Your task to perform on an android device: turn on notifications settings in the gmail app Image 0: 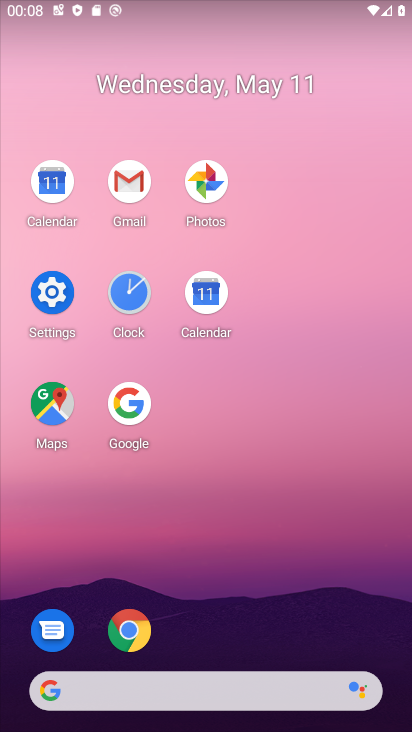
Step 0: click (124, 186)
Your task to perform on an android device: turn on notifications settings in the gmail app Image 1: 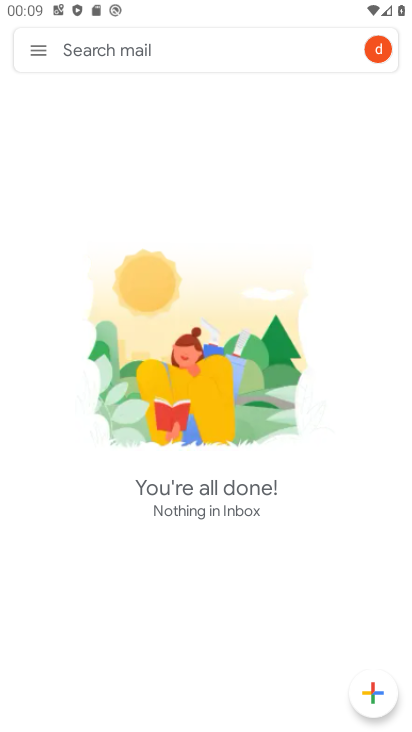
Step 1: click (46, 49)
Your task to perform on an android device: turn on notifications settings in the gmail app Image 2: 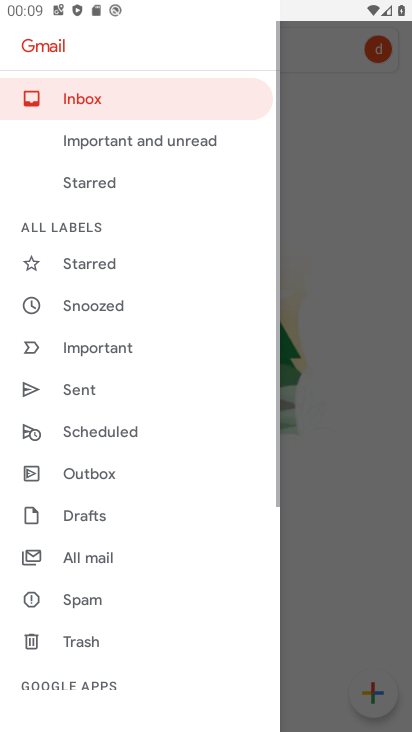
Step 2: drag from (127, 609) to (149, 188)
Your task to perform on an android device: turn on notifications settings in the gmail app Image 3: 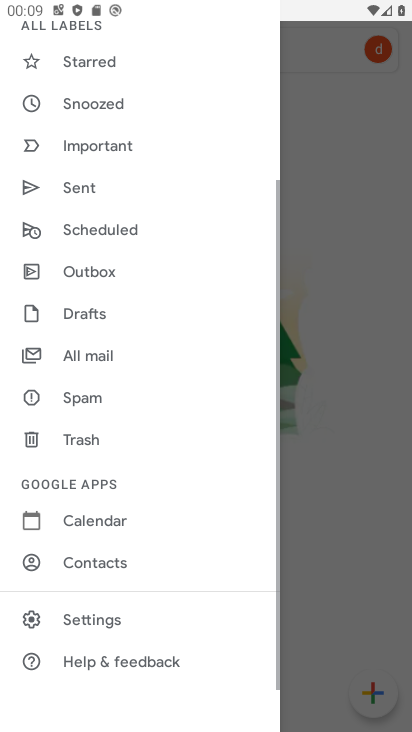
Step 3: click (99, 618)
Your task to perform on an android device: turn on notifications settings in the gmail app Image 4: 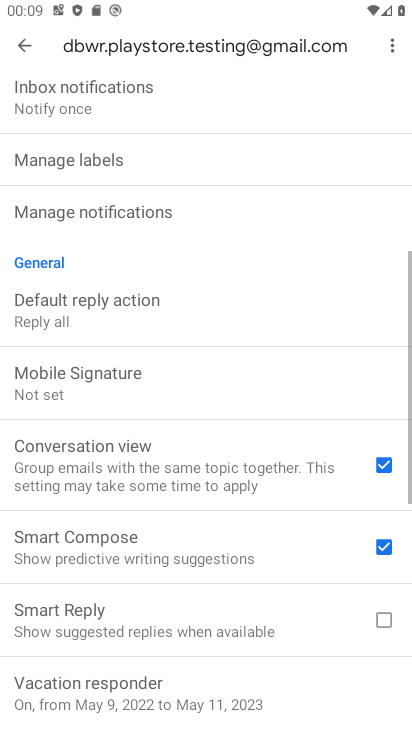
Step 4: drag from (95, 610) to (135, 150)
Your task to perform on an android device: turn on notifications settings in the gmail app Image 5: 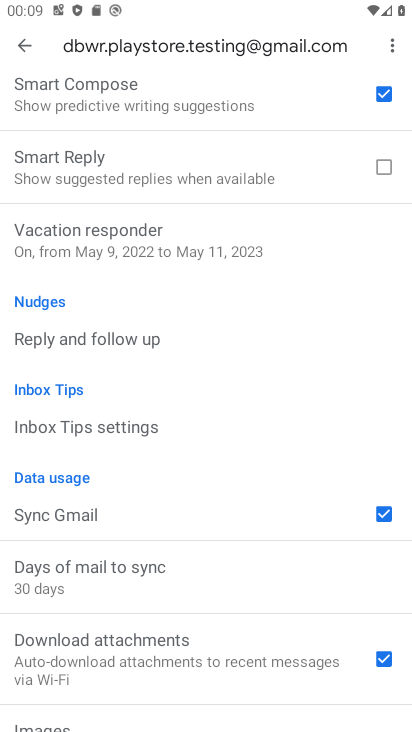
Step 5: drag from (114, 537) to (173, 169)
Your task to perform on an android device: turn on notifications settings in the gmail app Image 6: 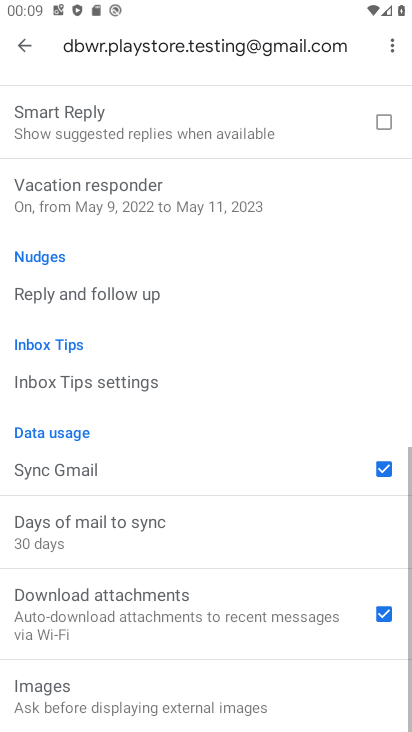
Step 6: drag from (167, 183) to (129, 700)
Your task to perform on an android device: turn on notifications settings in the gmail app Image 7: 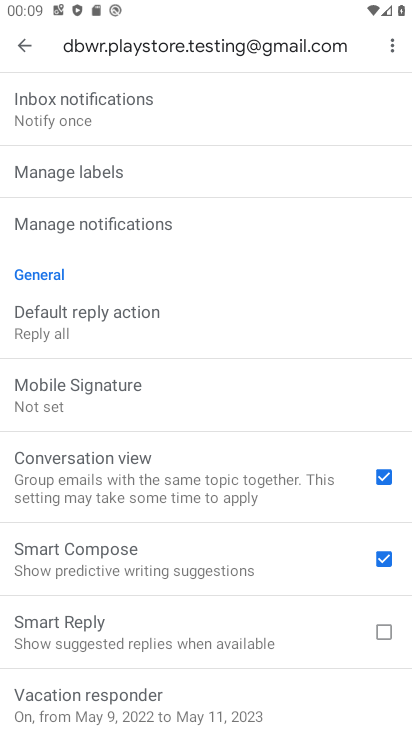
Step 7: drag from (223, 182) to (205, 367)
Your task to perform on an android device: turn on notifications settings in the gmail app Image 8: 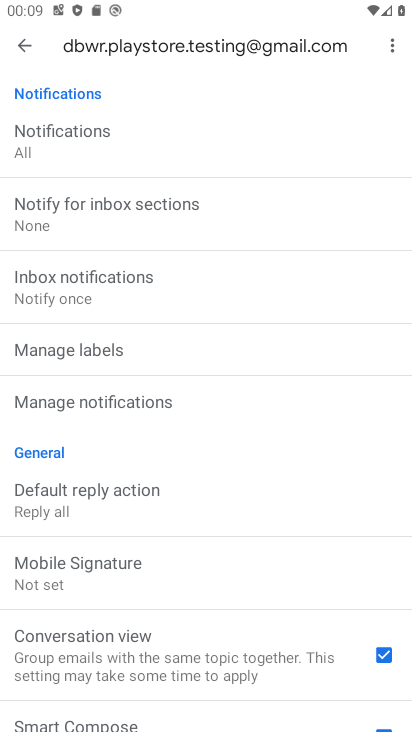
Step 8: click (163, 129)
Your task to perform on an android device: turn on notifications settings in the gmail app Image 9: 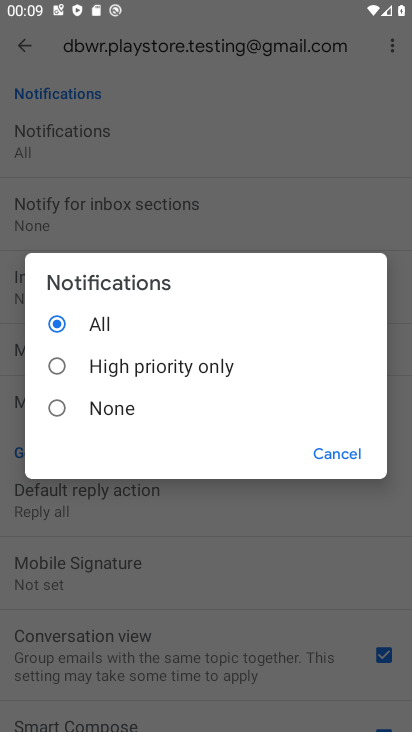
Step 9: task complete